Your task to perform on an android device: change notifications settings Image 0: 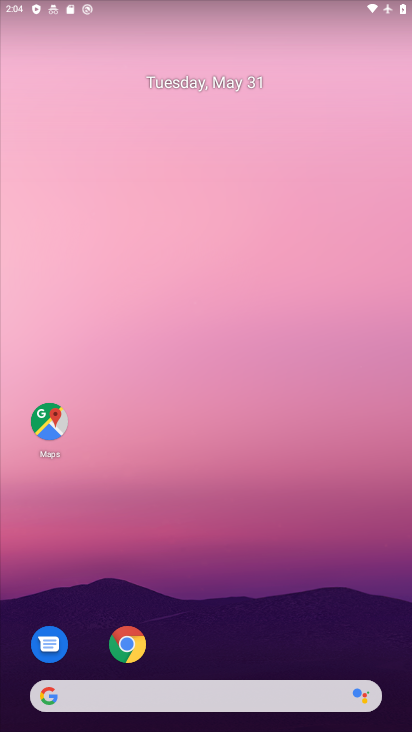
Step 0: drag from (274, 524) to (284, 130)
Your task to perform on an android device: change notifications settings Image 1: 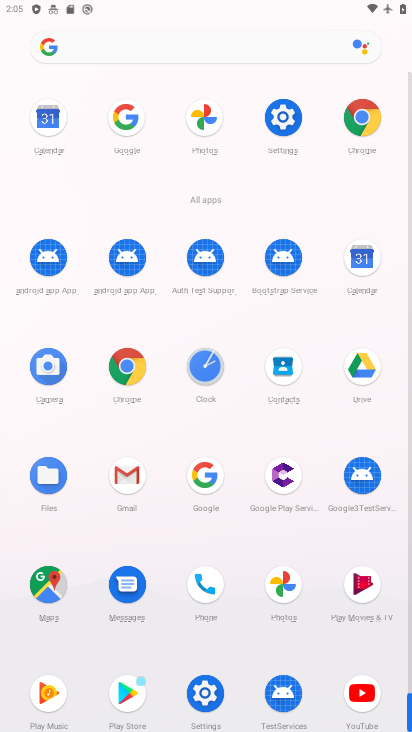
Step 1: click (294, 117)
Your task to perform on an android device: change notifications settings Image 2: 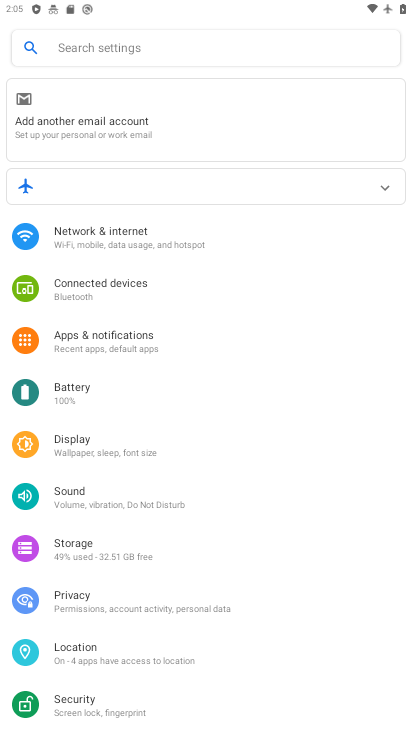
Step 2: drag from (180, 609) to (213, 176)
Your task to perform on an android device: change notifications settings Image 3: 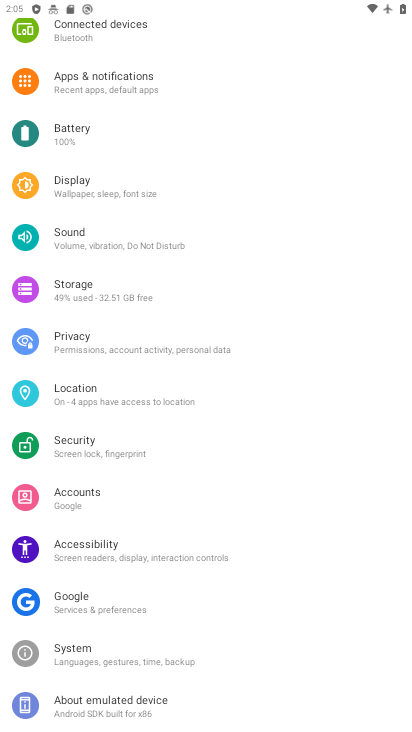
Step 3: drag from (85, 257) to (244, 671)
Your task to perform on an android device: change notifications settings Image 4: 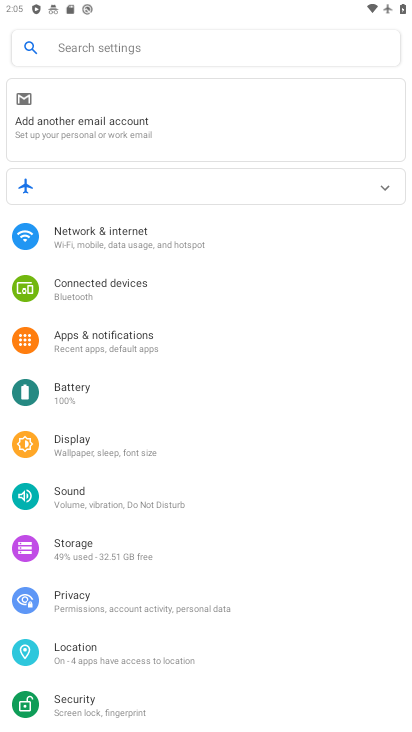
Step 4: click (131, 333)
Your task to perform on an android device: change notifications settings Image 5: 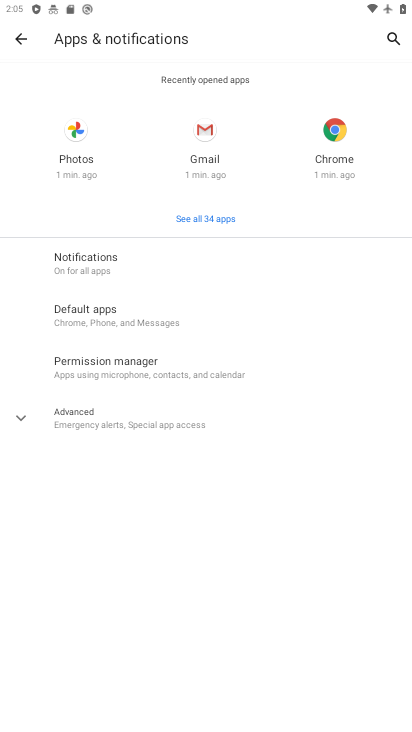
Step 5: click (119, 262)
Your task to perform on an android device: change notifications settings Image 6: 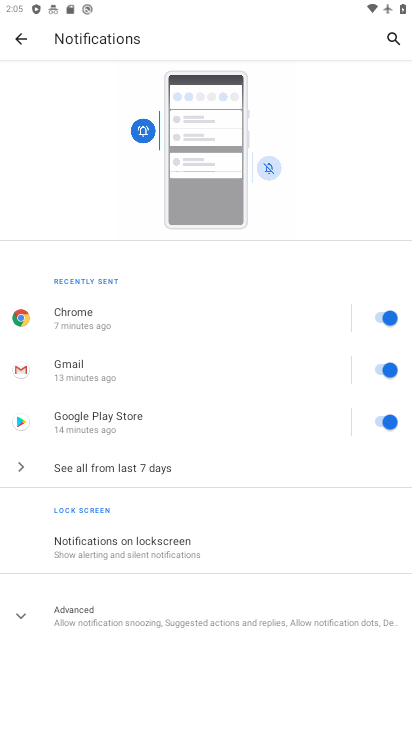
Step 6: click (191, 603)
Your task to perform on an android device: change notifications settings Image 7: 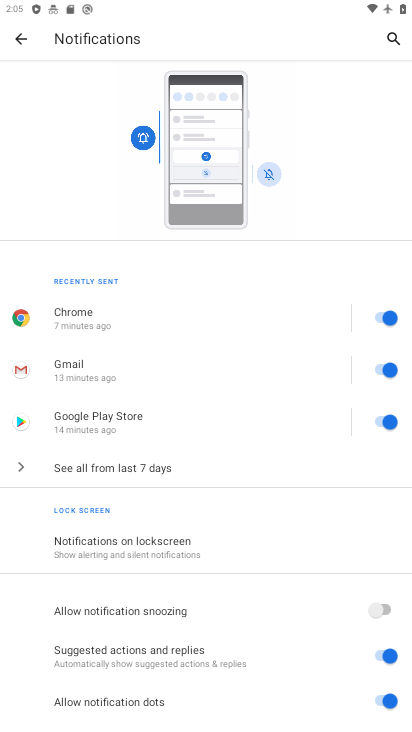
Step 7: click (387, 609)
Your task to perform on an android device: change notifications settings Image 8: 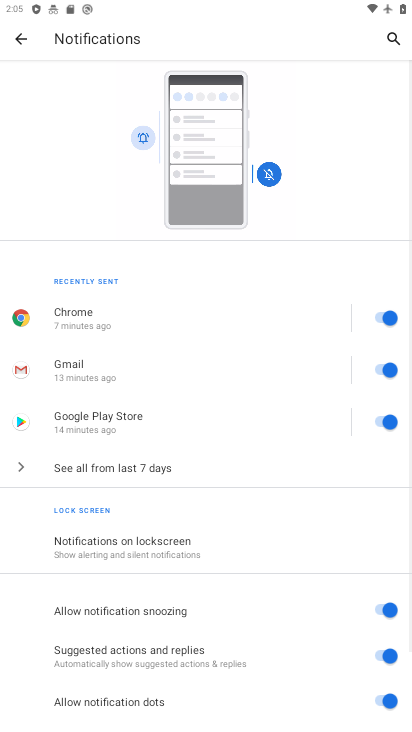
Step 8: task complete